Your task to perform on an android device: Open calendar and show me the fourth week of next month Image 0: 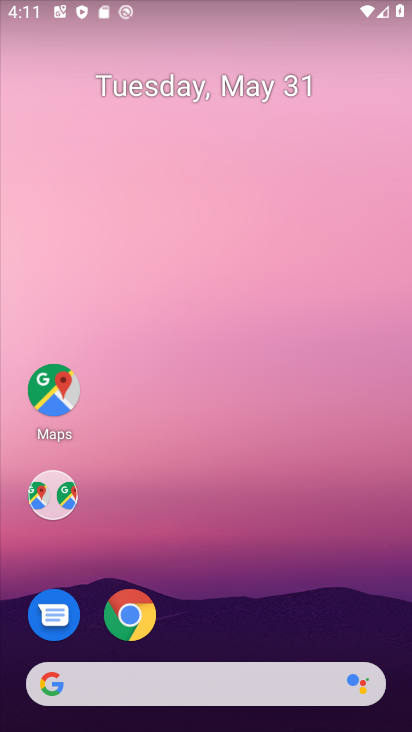
Step 0: click (320, 279)
Your task to perform on an android device: Open calendar and show me the fourth week of next month Image 1: 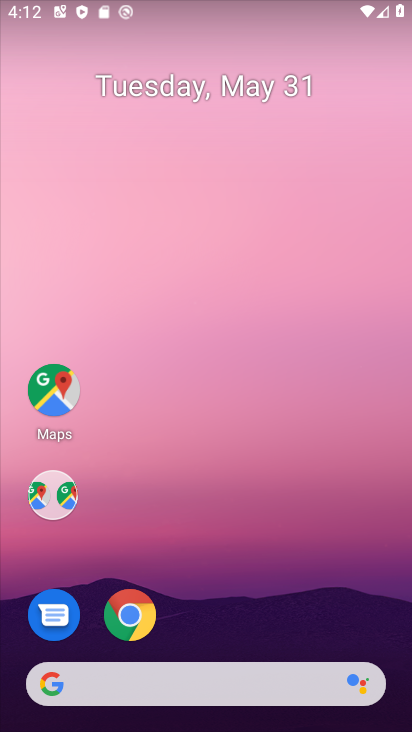
Step 1: drag from (295, 658) to (227, 373)
Your task to perform on an android device: Open calendar and show me the fourth week of next month Image 2: 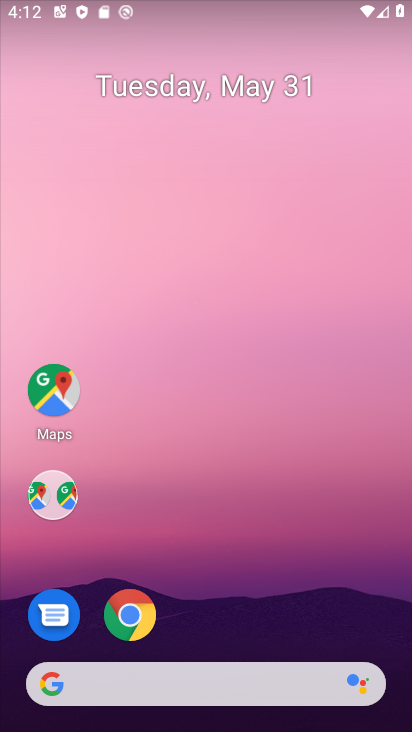
Step 2: drag from (284, 597) to (242, 322)
Your task to perform on an android device: Open calendar and show me the fourth week of next month Image 3: 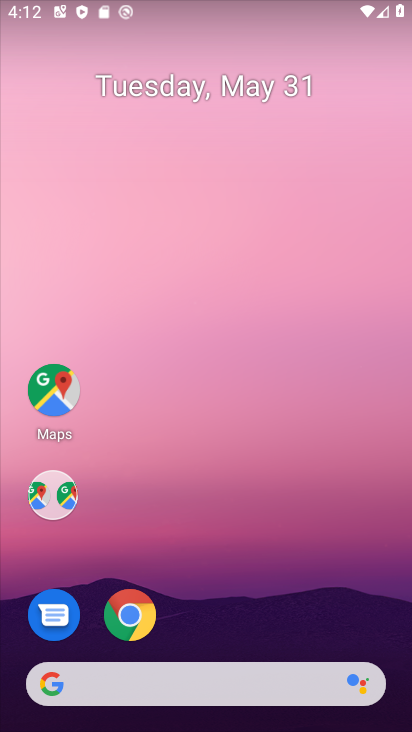
Step 3: drag from (283, 600) to (219, 258)
Your task to perform on an android device: Open calendar and show me the fourth week of next month Image 4: 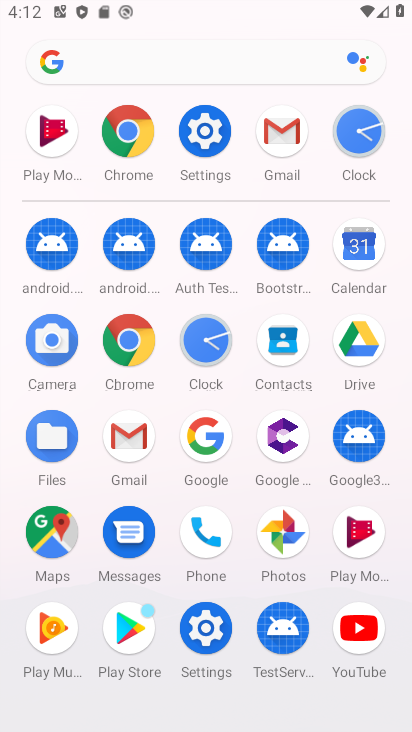
Step 4: click (362, 241)
Your task to perform on an android device: Open calendar and show me the fourth week of next month Image 5: 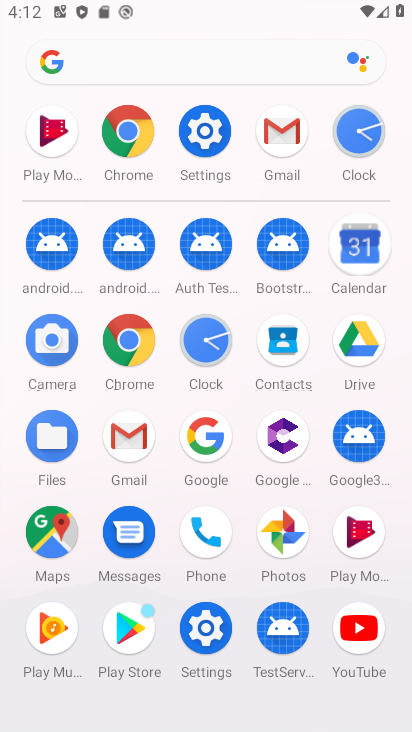
Step 5: click (362, 240)
Your task to perform on an android device: Open calendar and show me the fourth week of next month Image 6: 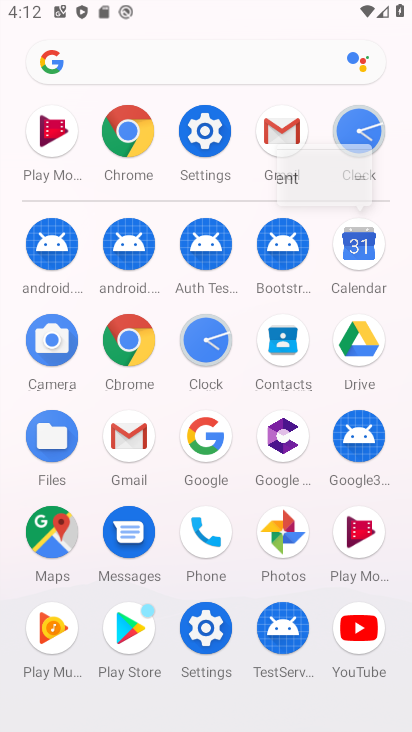
Step 6: click (362, 241)
Your task to perform on an android device: Open calendar and show me the fourth week of next month Image 7: 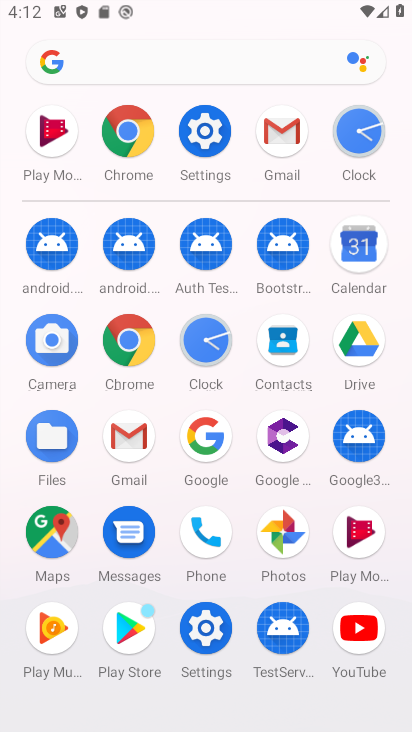
Step 7: click (362, 241)
Your task to perform on an android device: Open calendar and show me the fourth week of next month Image 8: 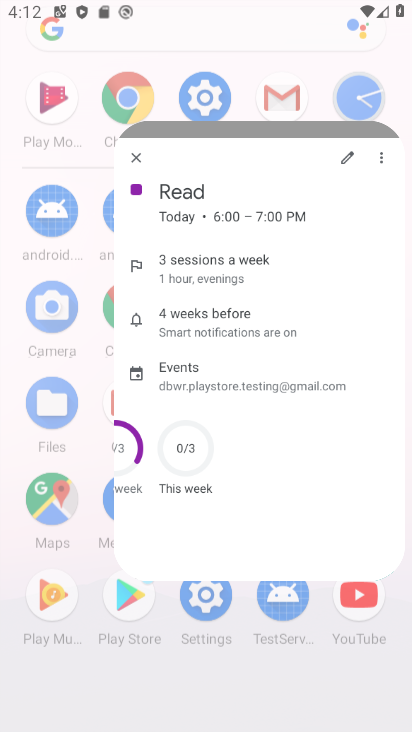
Step 8: click (362, 241)
Your task to perform on an android device: Open calendar and show me the fourth week of next month Image 9: 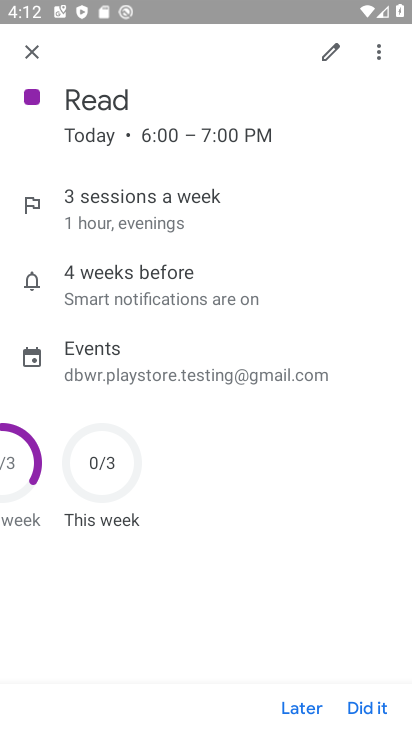
Step 9: click (362, 241)
Your task to perform on an android device: Open calendar and show me the fourth week of next month Image 10: 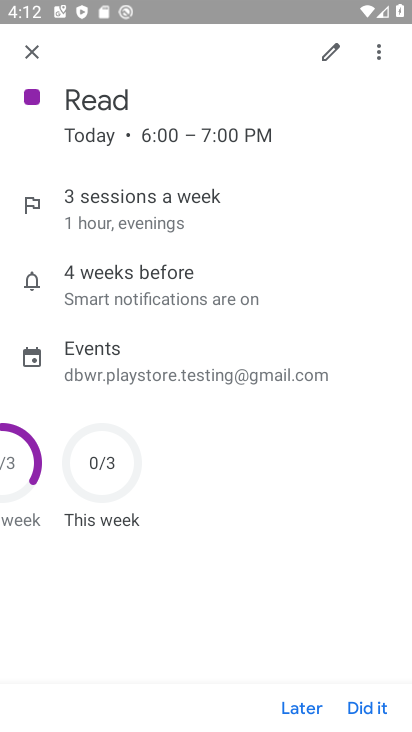
Step 10: click (27, 50)
Your task to perform on an android device: Open calendar and show me the fourth week of next month Image 11: 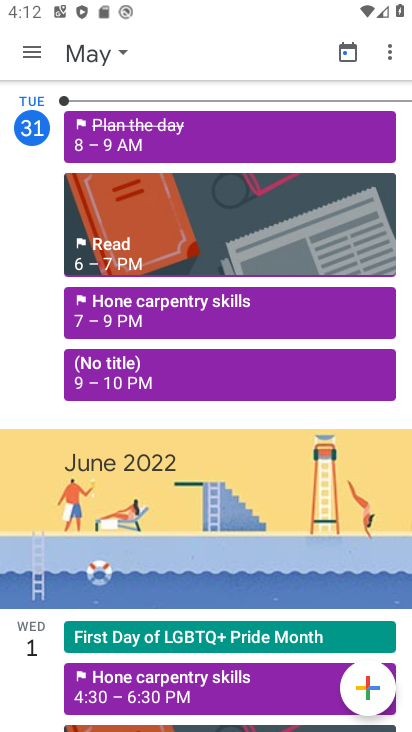
Step 11: click (123, 51)
Your task to perform on an android device: Open calendar and show me the fourth week of next month Image 12: 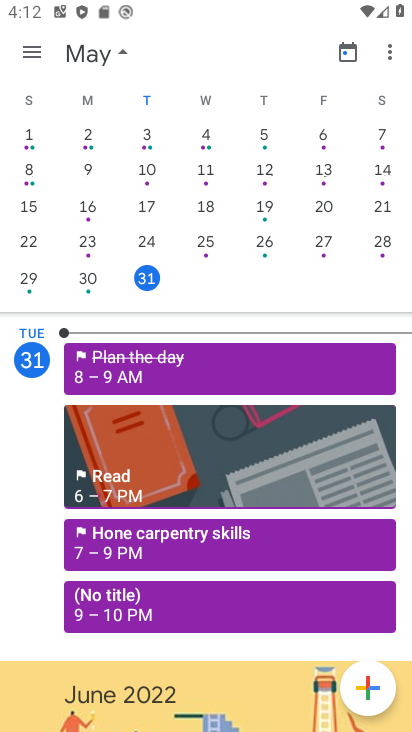
Step 12: drag from (281, 192) to (15, 169)
Your task to perform on an android device: Open calendar and show me the fourth week of next month Image 13: 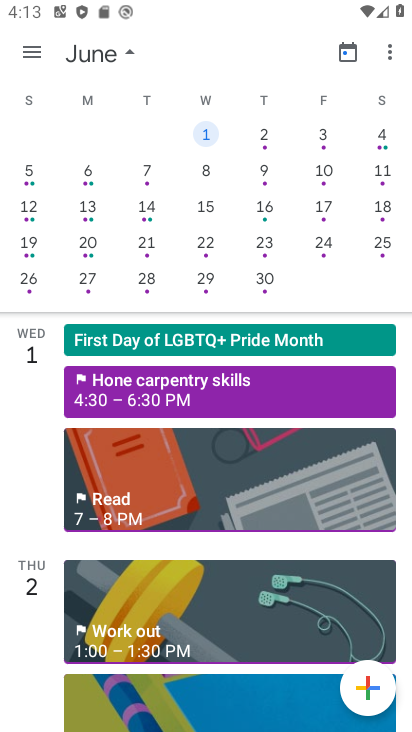
Step 13: click (199, 235)
Your task to perform on an android device: Open calendar and show me the fourth week of next month Image 14: 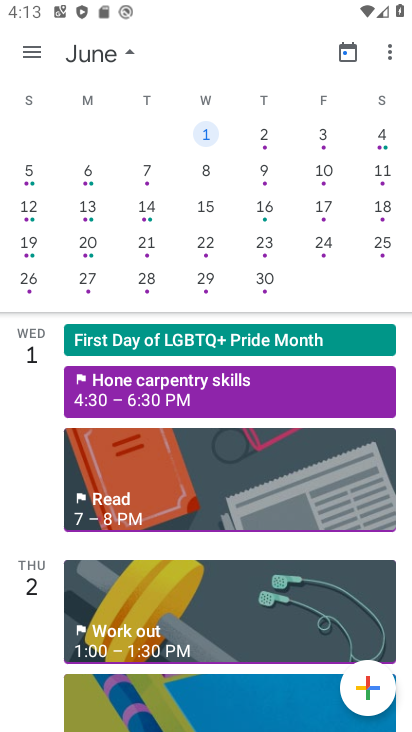
Step 14: click (199, 235)
Your task to perform on an android device: Open calendar and show me the fourth week of next month Image 15: 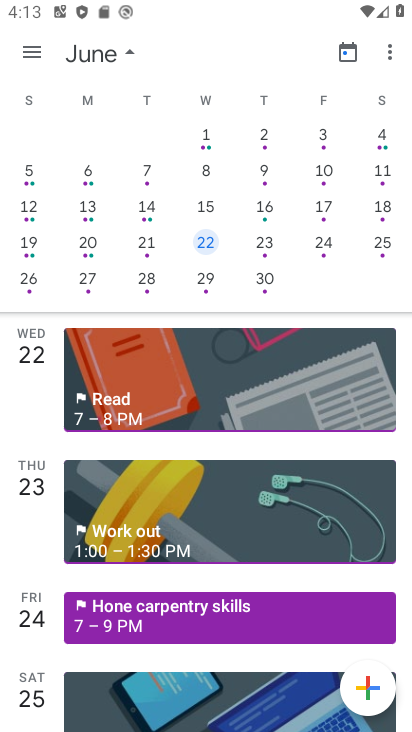
Step 15: click (199, 235)
Your task to perform on an android device: Open calendar and show me the fourth week of next month Image 16: 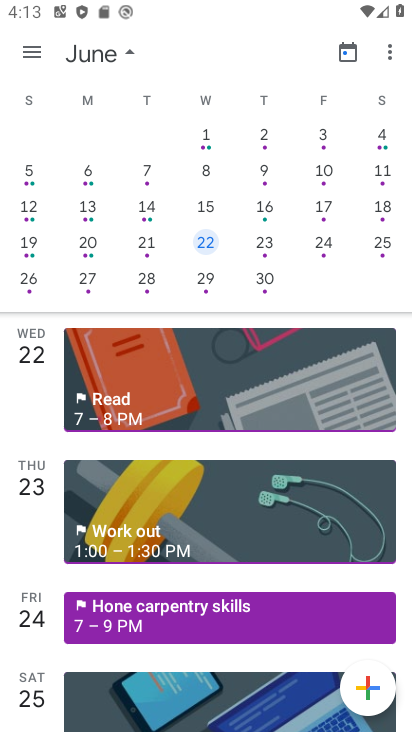
Step 16: click (201, 237)
Your task to perform on an android device: Open calendar and show me the fourth week of next month Image 17: 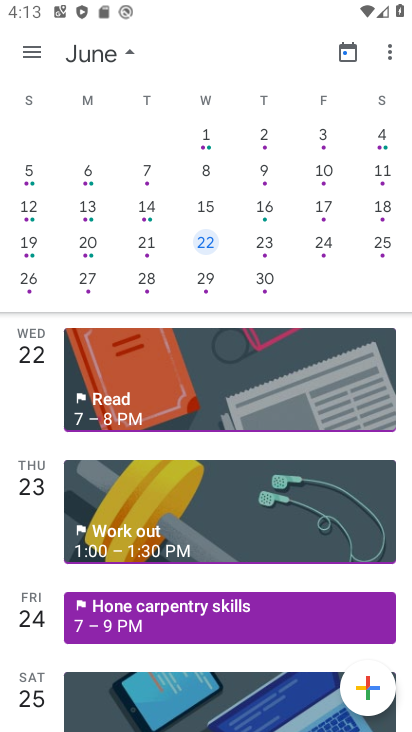
Step 17: click (204, 239)
Your task to perform on an android device: Open calendar and show me the fourth week of next month Image 18: 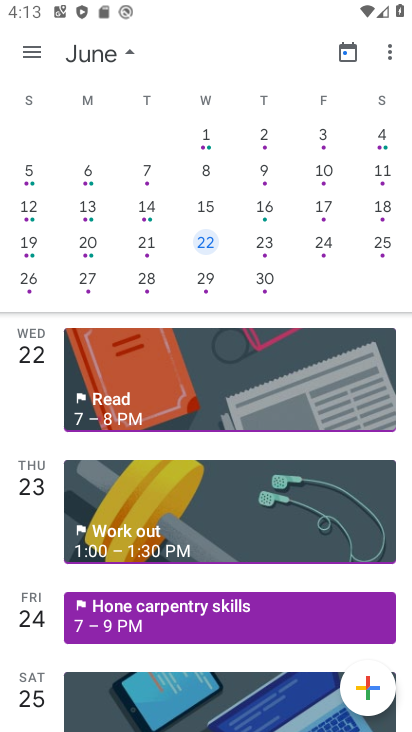
Step 18: click (205, 238)
Your task to perform on an android device: Open calendar and show me the fourth week of next month Image 19: 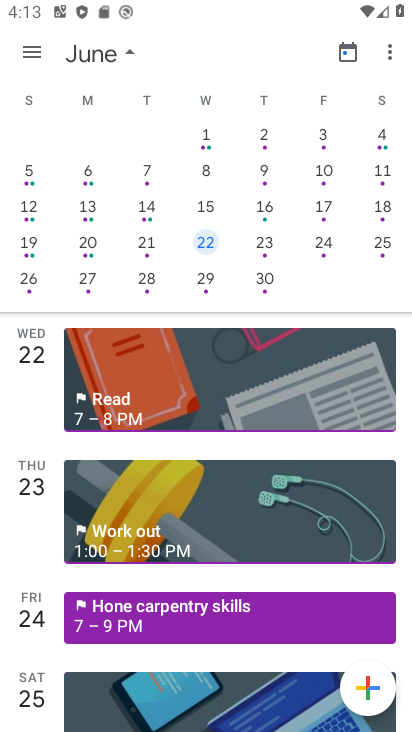
Step 19: task complete